Your task to perform on an android device: Open Maps and search for coffee Image 0: 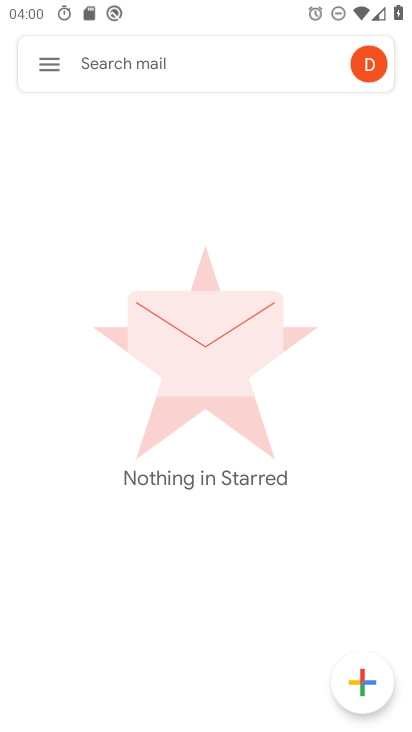
Step 0: press home button
Your task to perform on an android device: Open Maps and search for coffee Image 1: 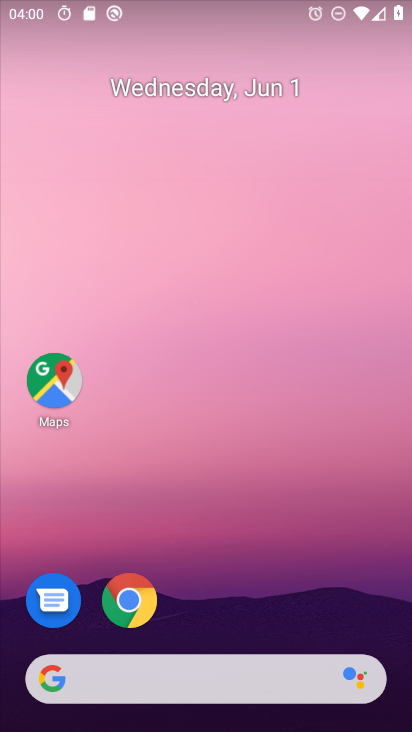
Step 1: drag from (184, 674) to (217, 442)
Your task to perform on an android device: Open Maps and search for coffee Image 2: 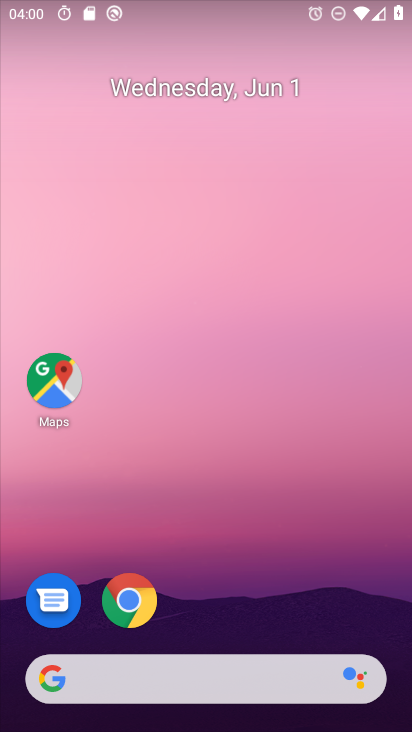
Step 2: click (57, 386)
Your task to perform on an android device: Open Maps and search for coffee Image 3: 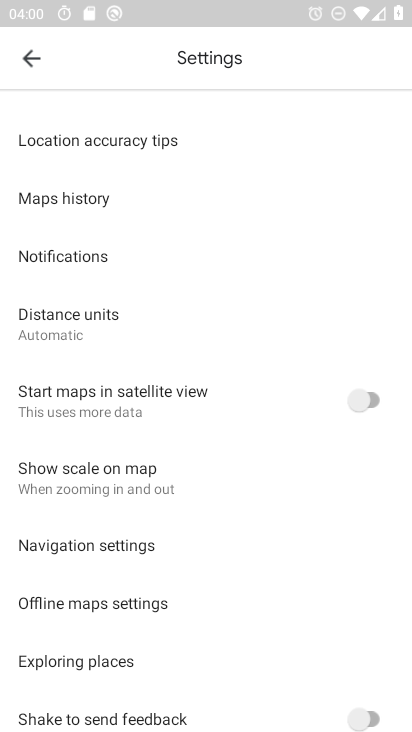
Step 3: click (28, 67)
Your task to perform on an android device: Open Maps and search for coffee Image 4: 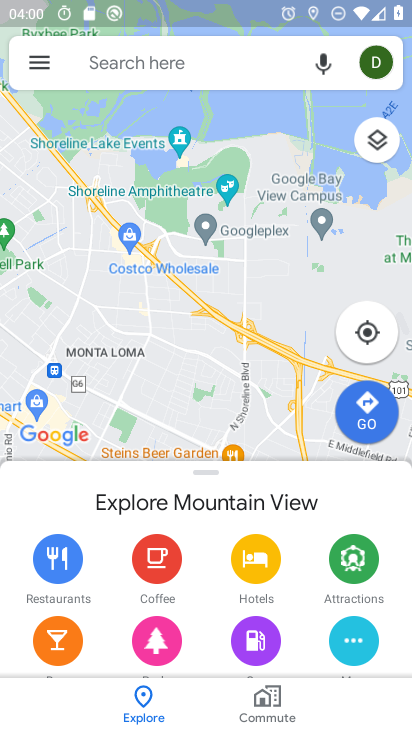
Step 4: click (165, 68)
Your task to perform on an android device: Open Maps and search for coffee Image 5: 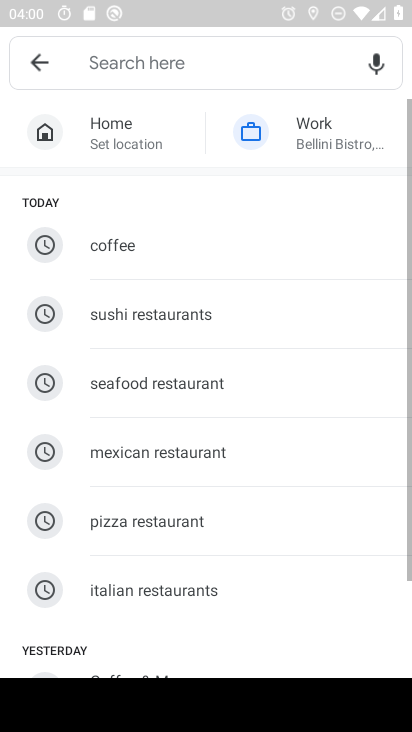
Step 5: click (133, 248)
Your task to perform on an android device: Open Maps and search for coffee Image 6: 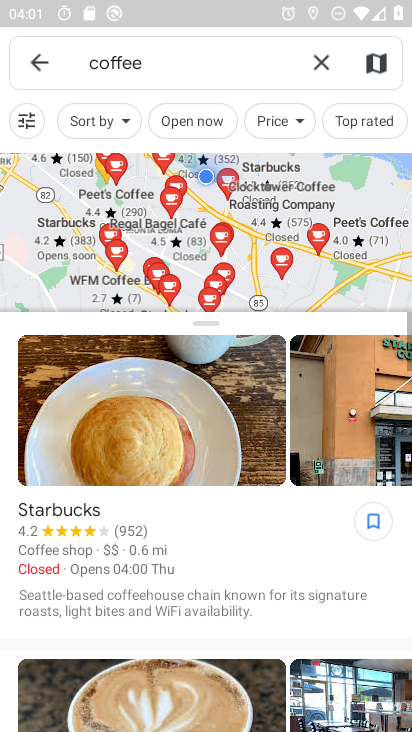
Step 6: task complete